Your task to perform on an android device: open the mobile data screen to see how much data has been used Image 0: 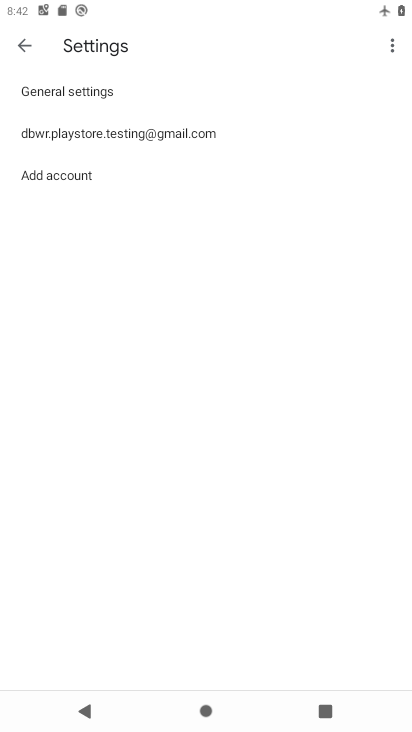
Step 0: press home button
Your task to perform on an android device: open the mobile data screen to see how much data has been used Image 1: 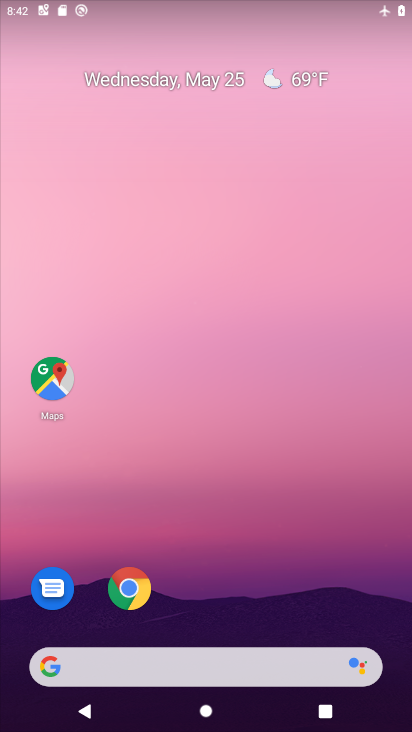
Step 1: drag from (333, 606) to (366, 374)
Your task to perform on an android device: open the mobile data screen to see how much data has been used Image 2: 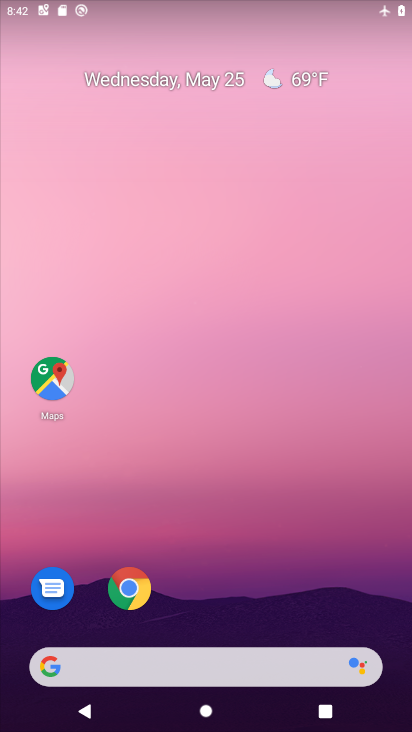
Step 2: drag from (353, 598) to (374, 290)
Your task to perform on an android device: open the mobile data screen to see how much data has been used Image 3: 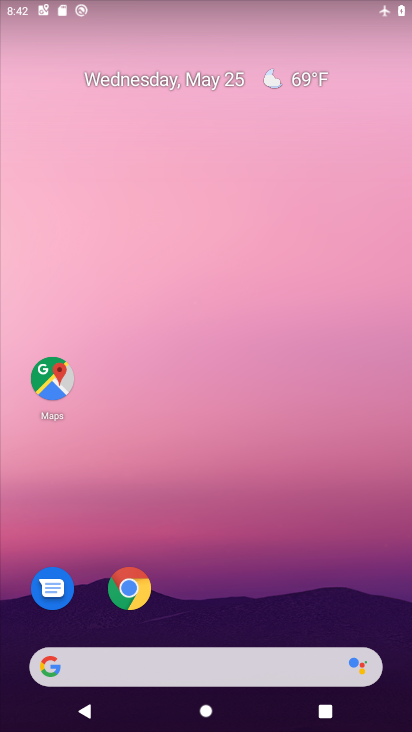
Step 3: drag from (253, 563) to (264, 154)
Your task to perform on an android device: open the mobile data screen to see how much data has been used Image 4: 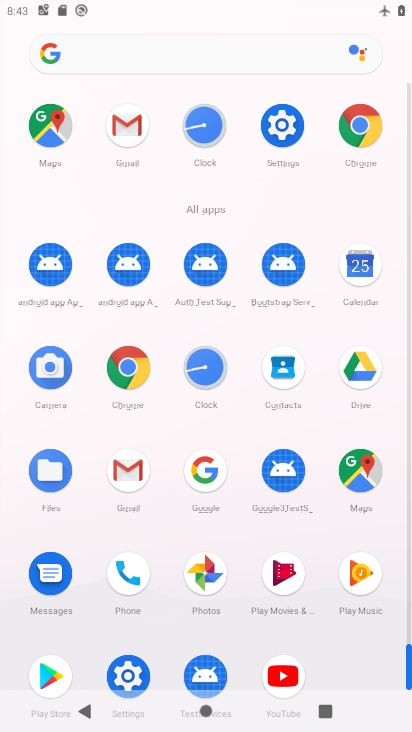
Step 4: click (284, 120)
Your task to perform on an android device: open the mobile data screen to see how much data has been used Image 5: 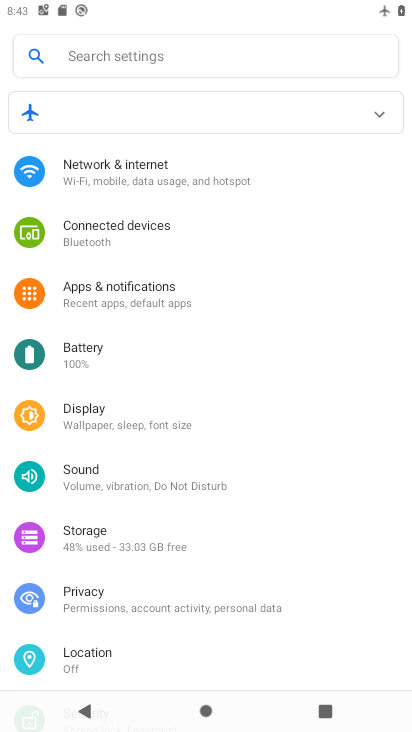
Step 5: click (222, 174)
Your task to perform on an android device: open the mobile data screen to see how much data has been used Image 6: 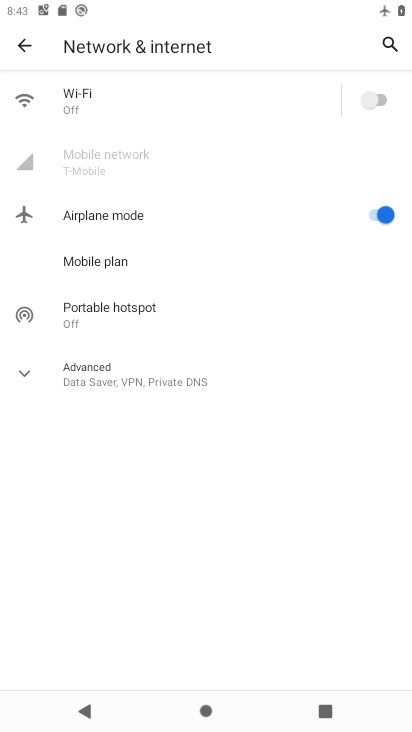
Step 6: click (154, 183)
Your task to perform on an android device: open the mobile data screen to see how much data has been used Image 7: 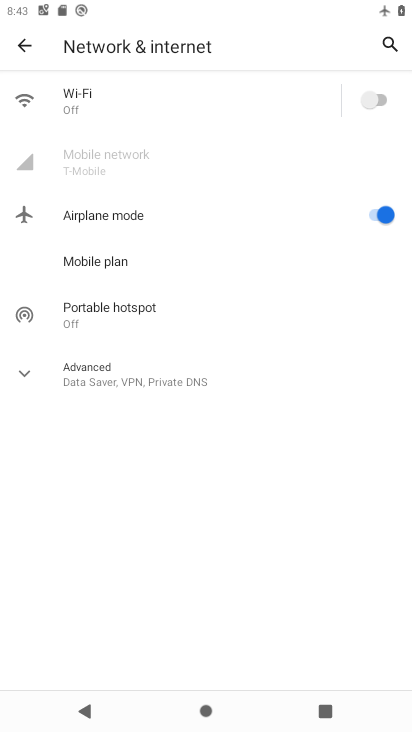
Step 7: task complete